Your task to perform on an android device: Open Youtube and go to the subscriptions tab Image 0: 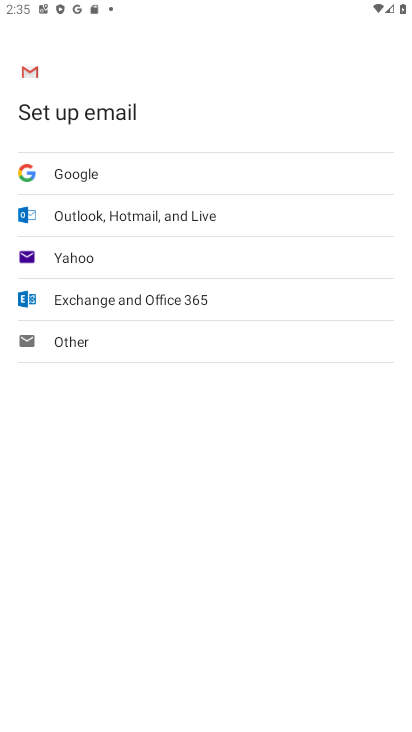
Step 0: press home button
Your task to perform on an android device: Open Youtube and go to the subscriptions tab Image 1: 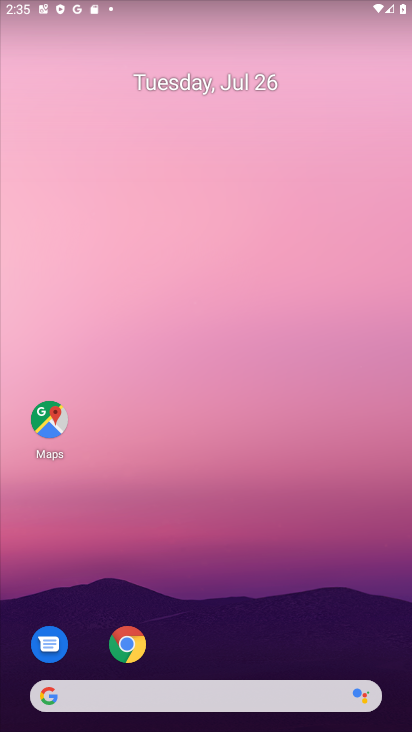
Step 1: drag from (211, 653) to (211, 54)
Your task to perform on an android device: Open Youtube and go to the subscriptions tab Image 2: 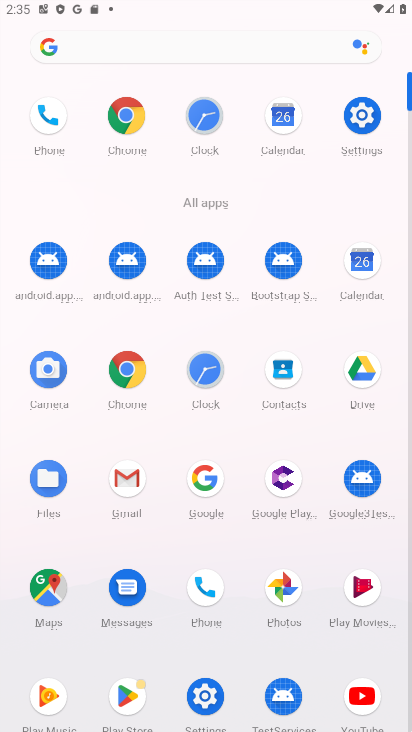
Step 2: click (352, 684)
Your task to perform on an android device: Open Youtube and go to the subscriptions tab Image 3: 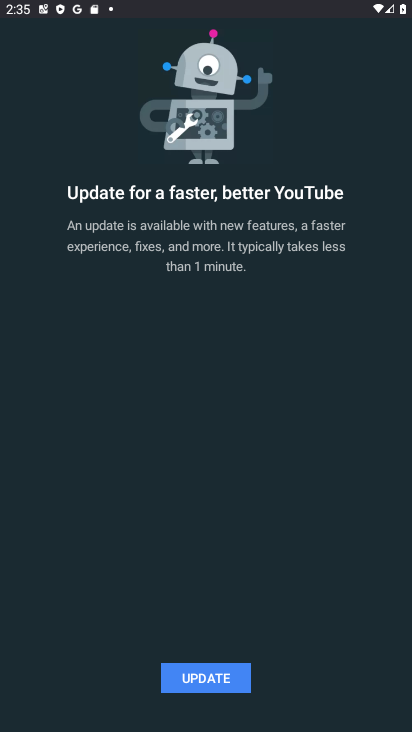
Step 3: click (228, 678)
Your task to perform on an android device: Open Youtube and go to the subscriptions tab Image 4: 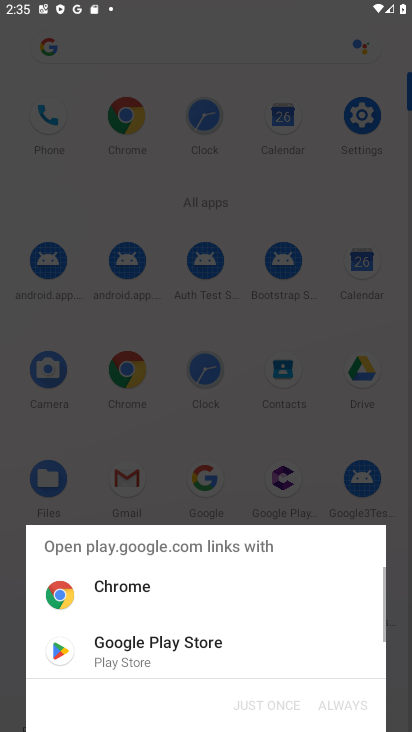
Step 4: drag from (208, 664) to (292, 664)
Your task to perform on an android device: Open Youtube and go to the subscriptions tab Image 5: 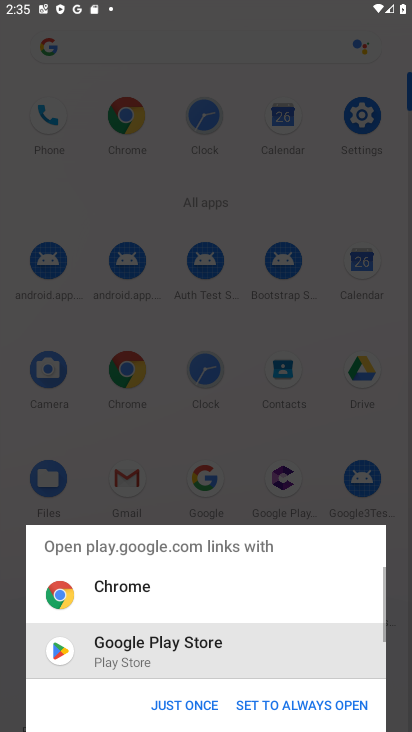
Step 5: click (206, 698)
Your task to perform on an android device: Open Youtube and go to the subscriptions tab Image 6: 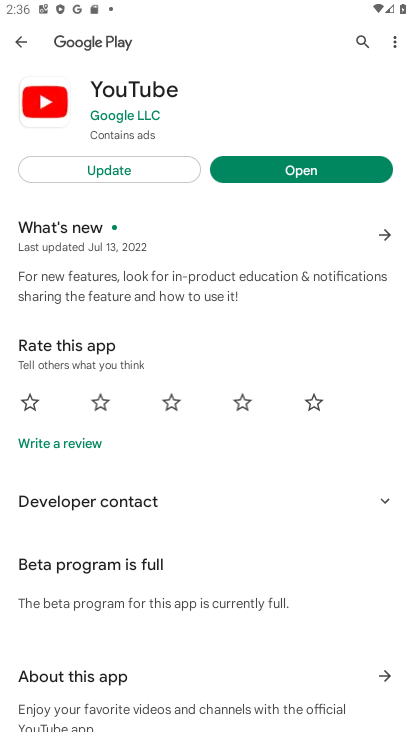
Step 6: click (348, 175)
Your task to perform on an android device: Open Youtube and go to the subscriptions tab Image 7: 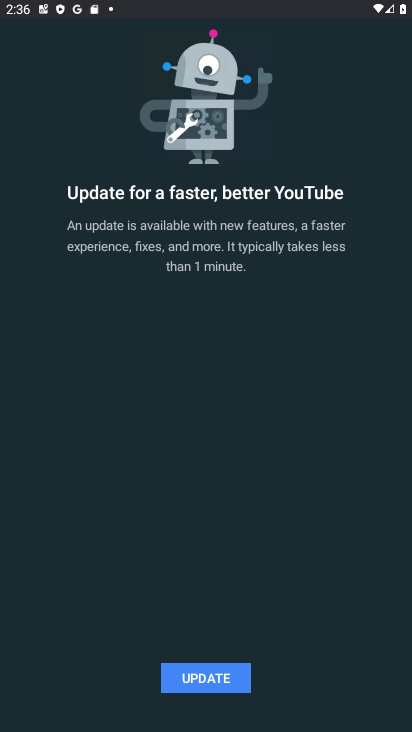
Step 7: click (112, 680)
Your task to perform on an android device: Open Youtube and go to the subscriptions tab Image 8: 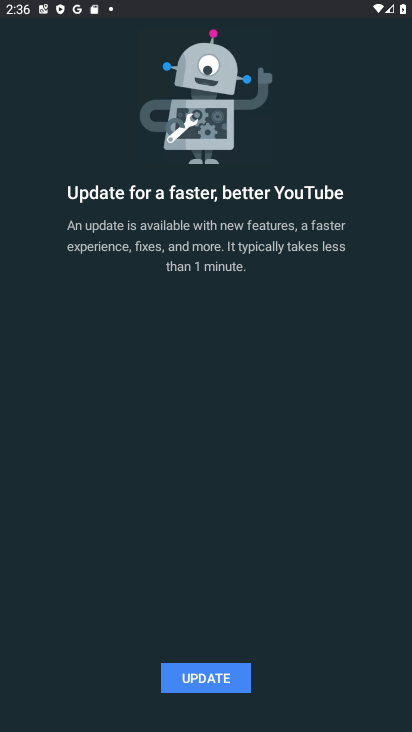
Step 8: click (222, 676)
Your task to perform on an android device: Open Youtube and go to the subscriptions tab Image 9: 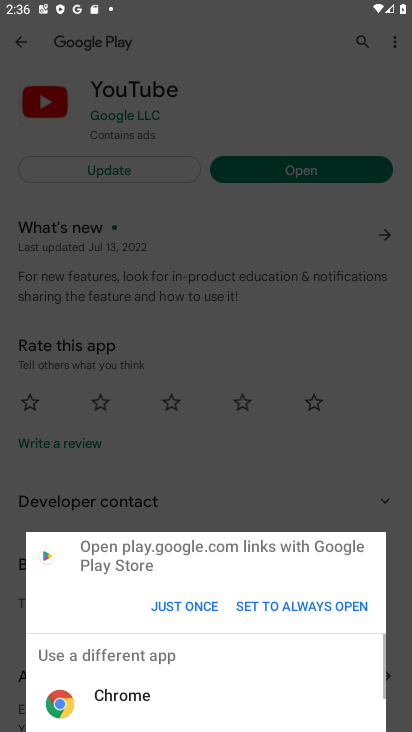
Step 9: click (208, 610)
Your task to perform on an android device: Open Youtube and go to the subscriptions tab Image 10: 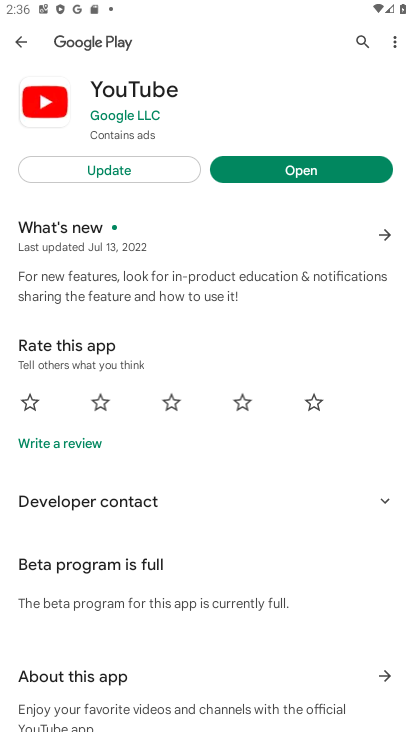
Step 10: click (147, 168)
Your task to perform on an android device: Open Youtube and go to the subscriptions tab Image 11: 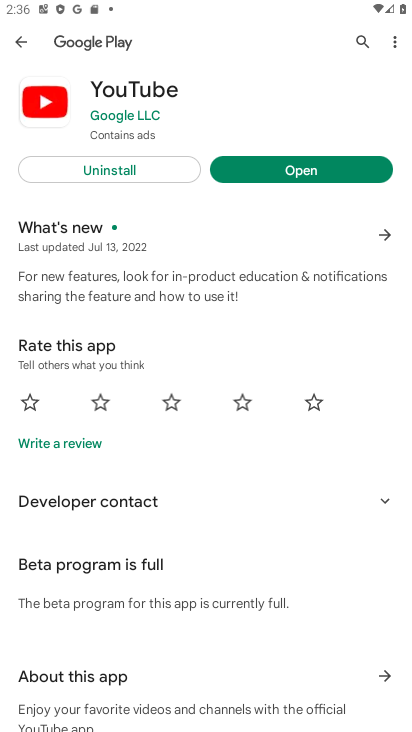
Step 11: click (296, 175)
Your task to perform on an android device: Open Youtube and go to the subscriptions tab Image 12: 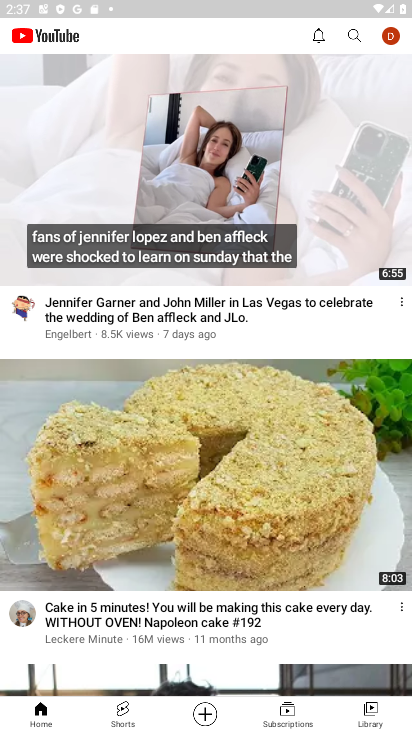
Step 12: click (284, 710)
Your task to perform on an android device: Open Youtube and go to the subscriptions tab Image 13: 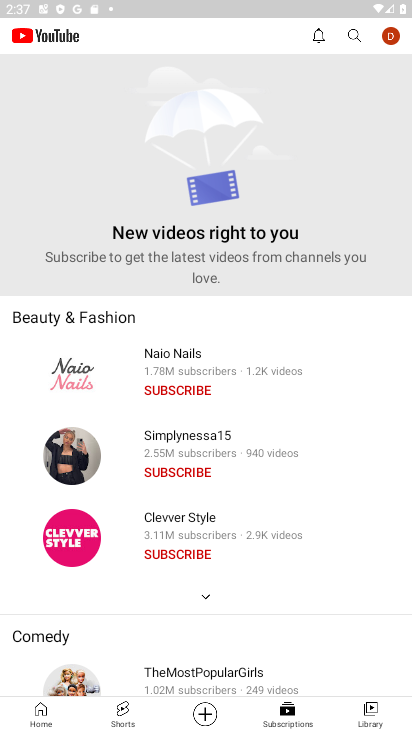
Step 13: task complete